Your task to perform on an android device: read, delete, or share a saved page in the chrome app Image 0: 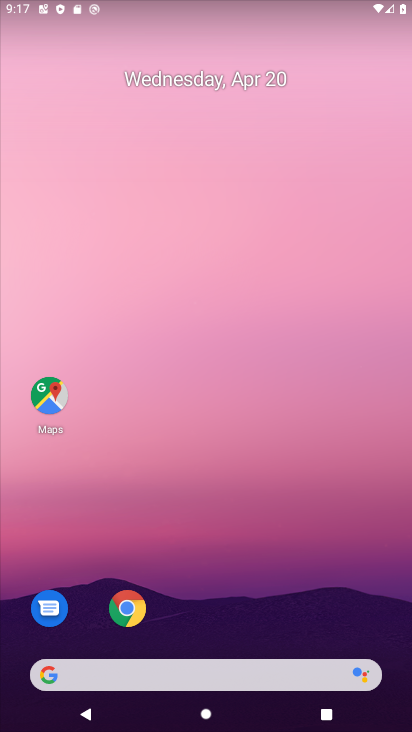
Step 0: click (134, 604)
Your task to perform on an android device: read, delete, or share a saved page in the chrome app Image 1: 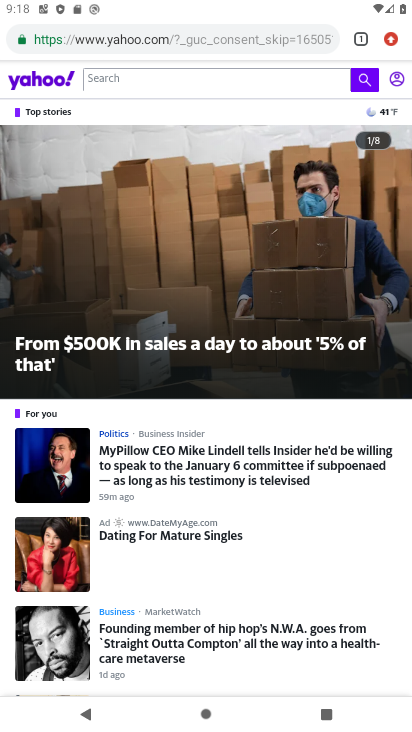
Step 1: click (390, 42)
Your task to perform on an android device: read, delete, or share a saved page in the chrome app Image 2: 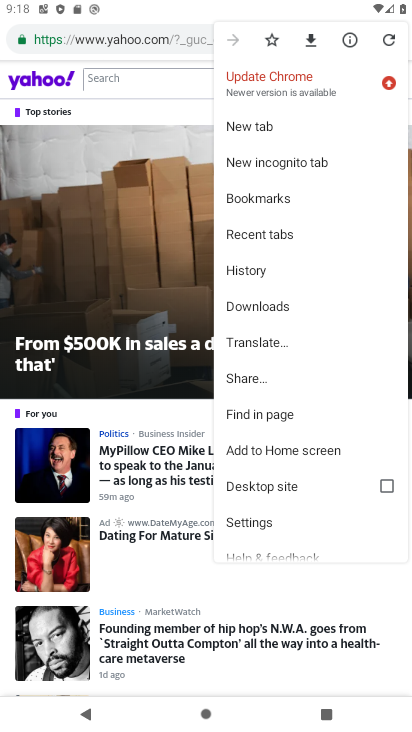
Step 2: click (269, 310)
Your task to perform on an android device: read, delete, or share a saved page in the chrome app Image 3: 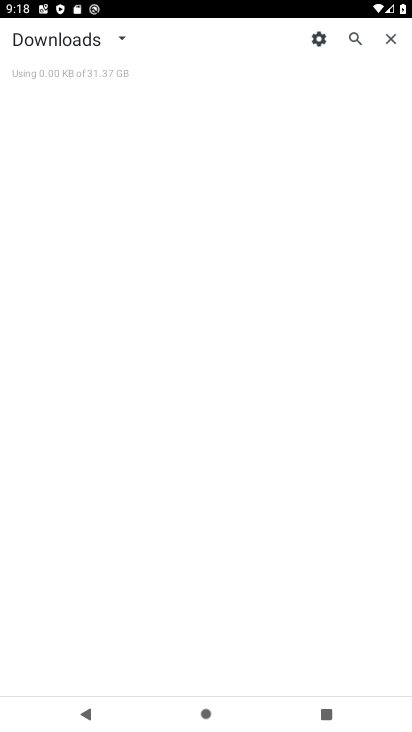
Step 3: task complete